Your task to perform on an android device: toggle airplane mode Image 0: 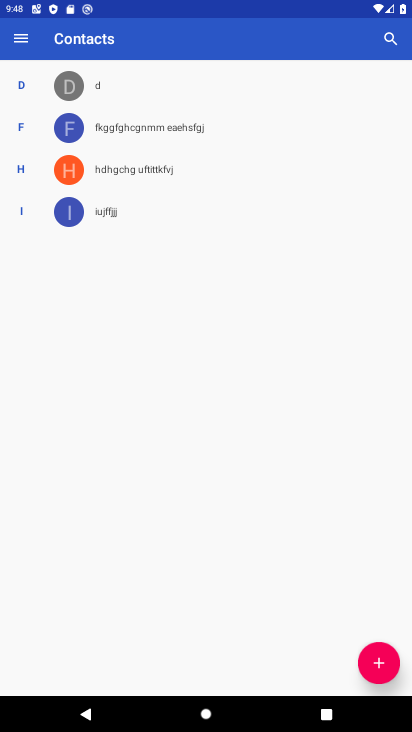
Step 0: press home button
Your task to perform on an android device: toggle airplane mode Image 1: 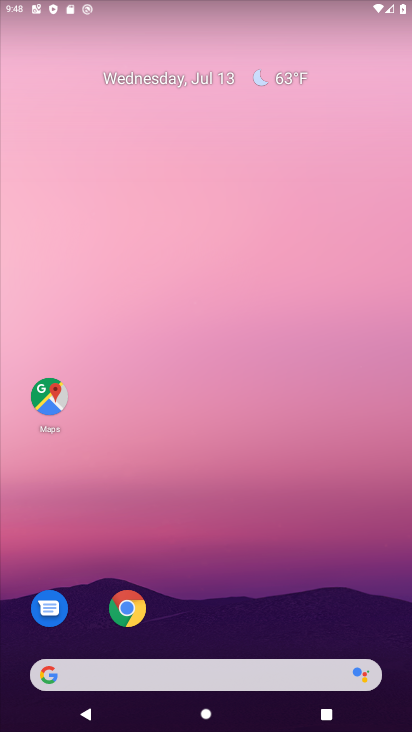
Step 1: drag from (187, 605) to (208, 172)
Your task to perform on an android device: toggle airplane mode Image 2: 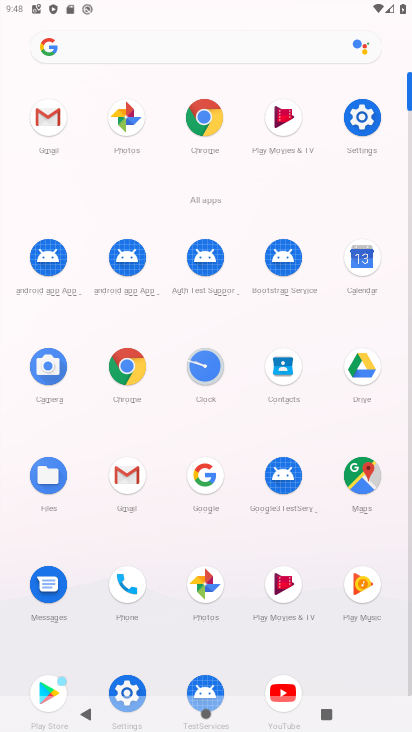
Step 2: drag from (156, 641) to (170, 531)
Your task to perform on an android device: toggle airplane mode Image 3: 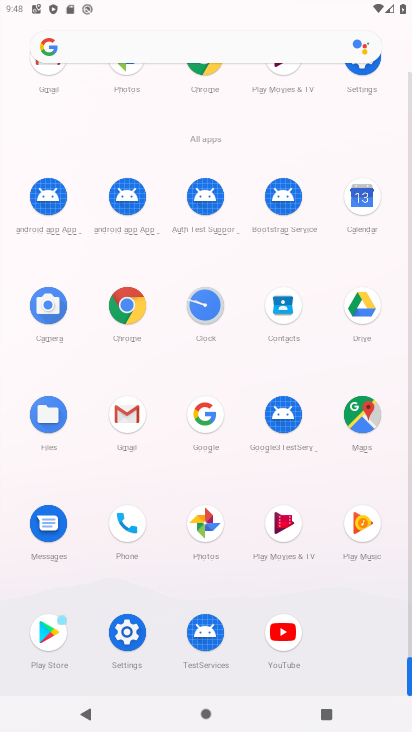
Step 3: click (129, 631)
Your task to perform on an android device: toggle airplane mode Image 4: 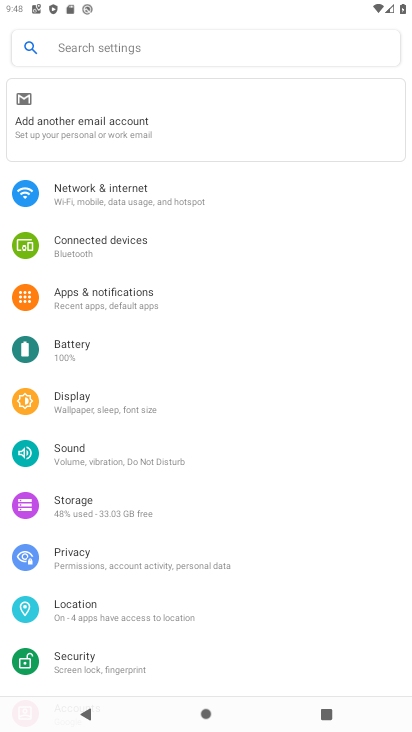
Step 4: click (138, 189)
Your task to perform on an android device: toggle airplane mode Image 5: 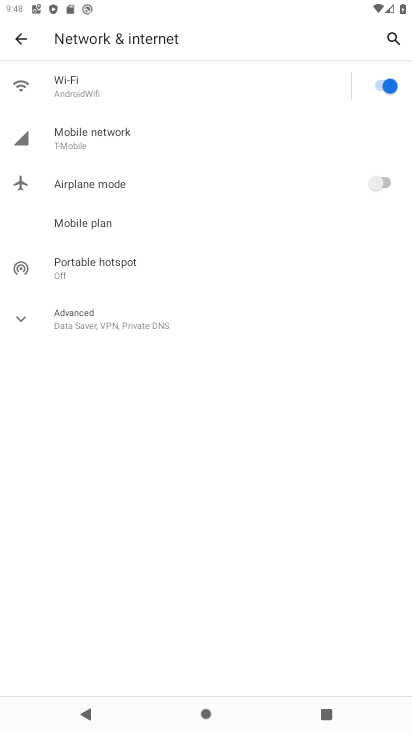
Step 5: click (392, 181)
Your task to perform on an android device: toggle airplane mode Image 6: 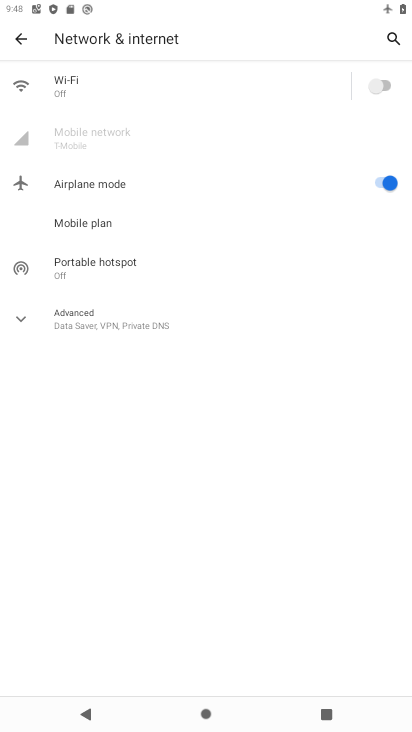
Step 6: task complete